Your task to perform on an android device: Go to Yahoo.com Image 0: 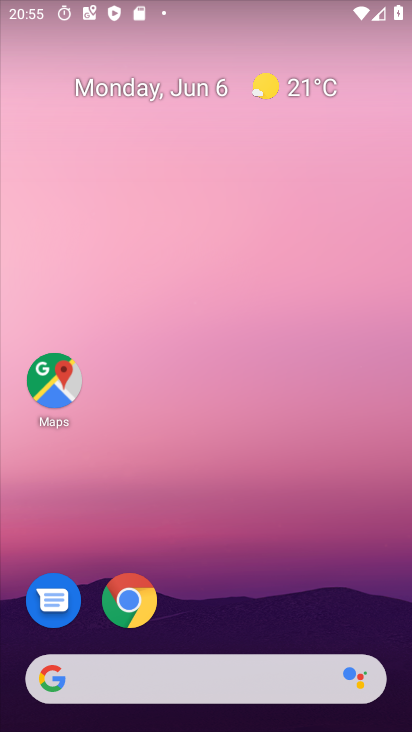
Step 0: drag from (245, 559) to (252, 27)
Your task to perform on an android device: Go to Yahoo.com Image 1: 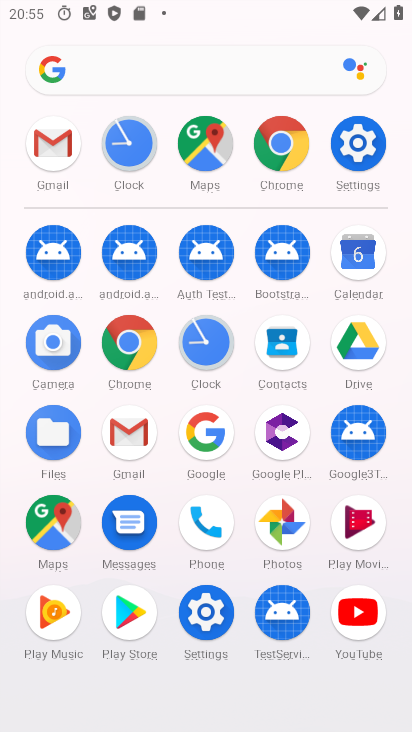
Step 1: drag from (0, 521) to (10, 196)
Your task to perform on an android device: Go to Yahoo.com Image 2: 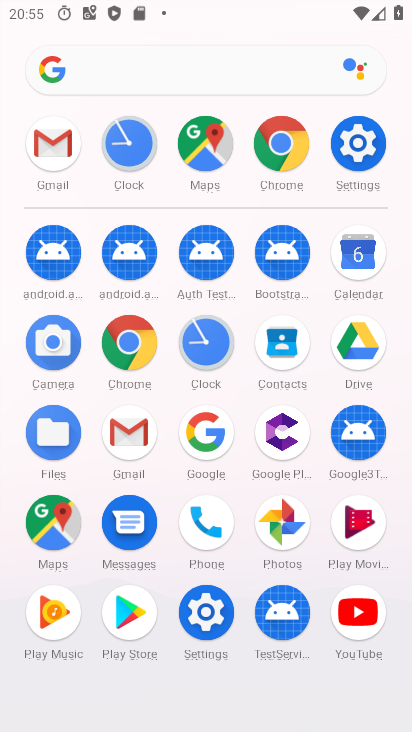
Step 2: click (280, 134)
Your task to perform on an android device: Go to Yahoo.com Image 3: 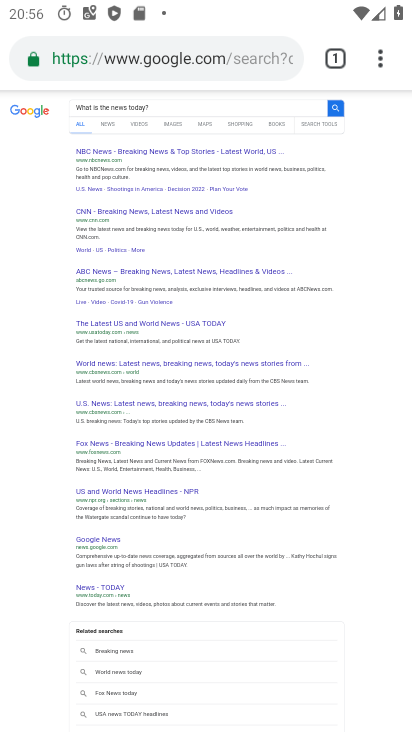
Step 3: click (210, 57)
Your task to perform on an android device: Go to Yahoo.com Image 4: 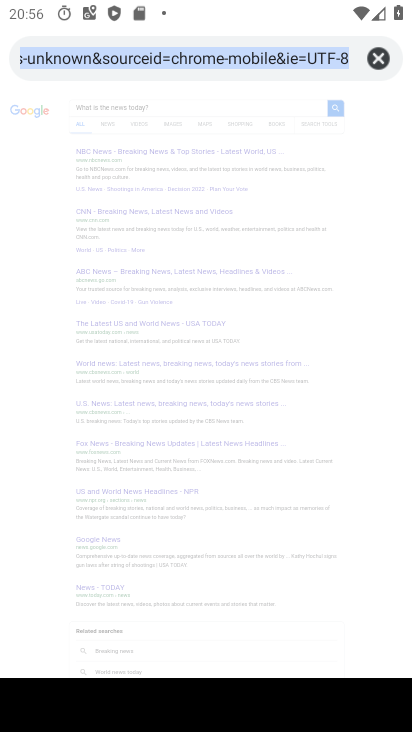
Step 4: click (377, 57)
Your task to perform on an android device: Go to Yahoo.com Image 5: 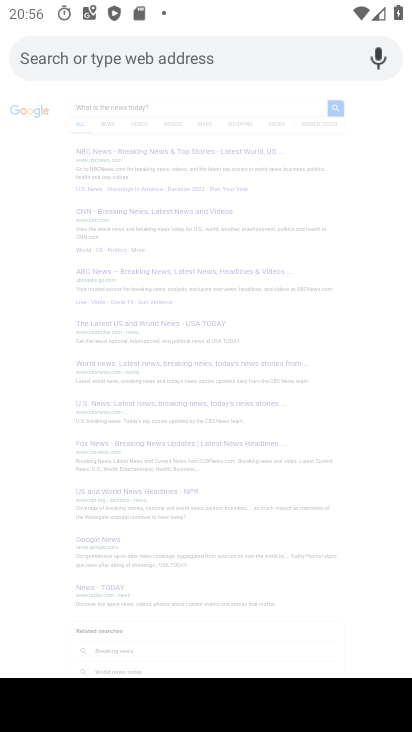
Step 5: type "Yahoo.com"
Your task to perform on an android device: Go to Yahoo.com Image 6: 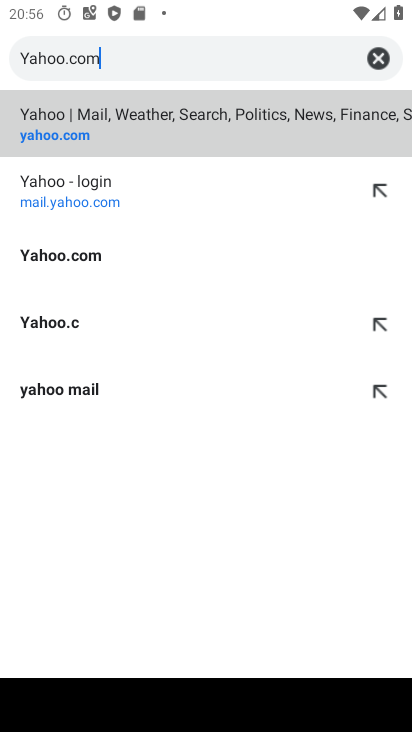
Step 6: type ""
Your task to perform on an android device: Go to Yahoo.com Image 7: 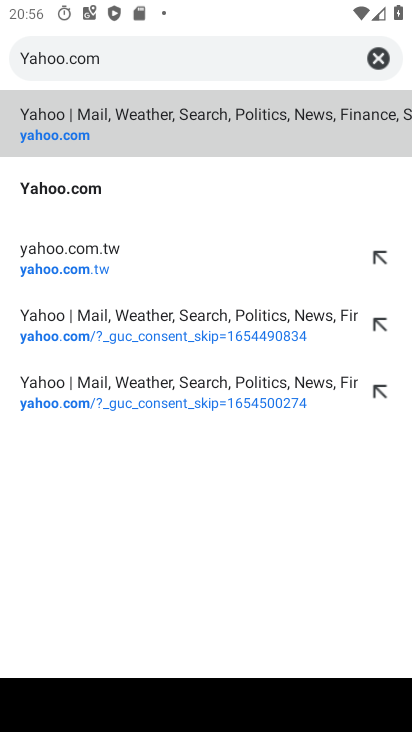
Step 7: click (122, 134)
Your task to perform on an android device: Go to Yahoo.com Image 8: 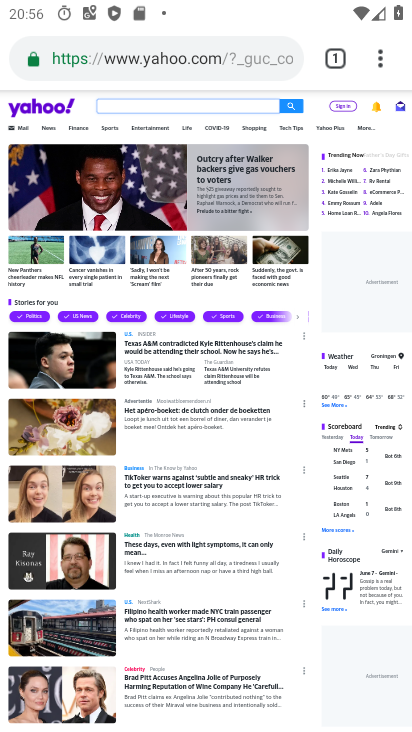
Step 8: task complete